Your task to perform on an android device: Turn off the flashlight Image 0: 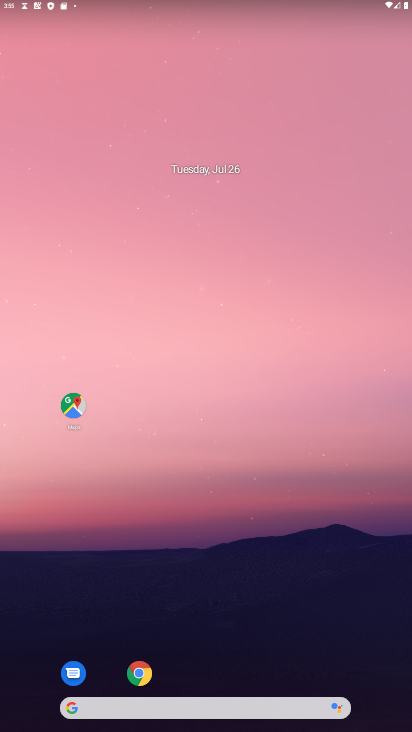
Step 0: drag from (181, 703) to (235, 134)
Your task to perform on an android device: Turn off the flashlight Image 1: 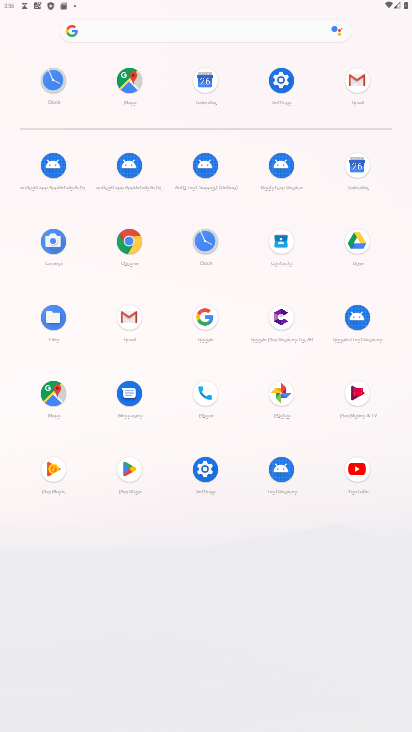
Step 1: click (278, 80)
Your task to perform on an android device: Turn off the flashlight Image 2: 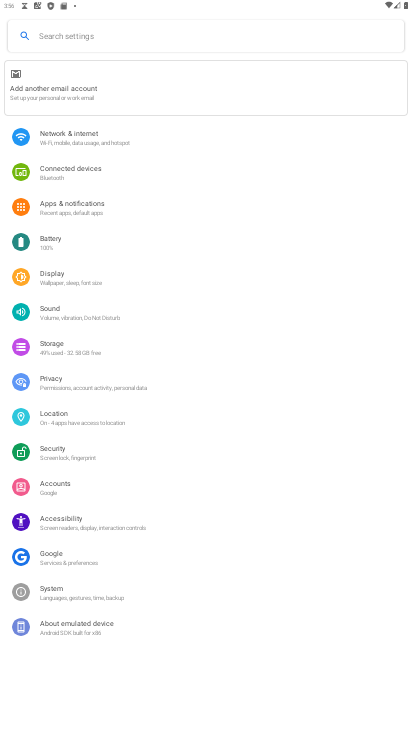
Step 2: click (67, 278)
Your task to perform on an android device: Turn off the flashlight Image 3: 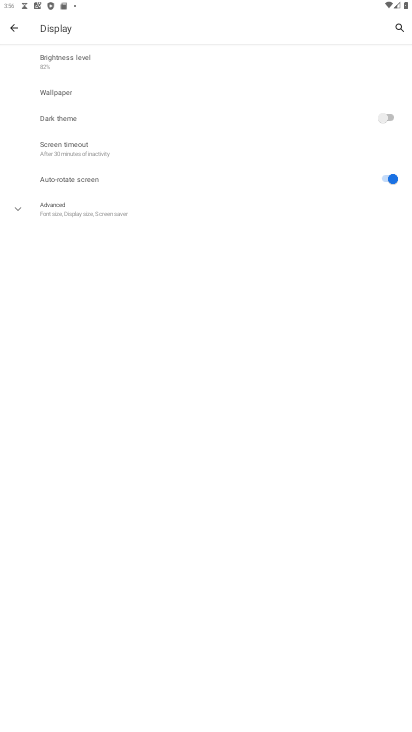
Step 3: click (398, 25)
Your task to perform on an android device: Turn off the flashlight Image 4: 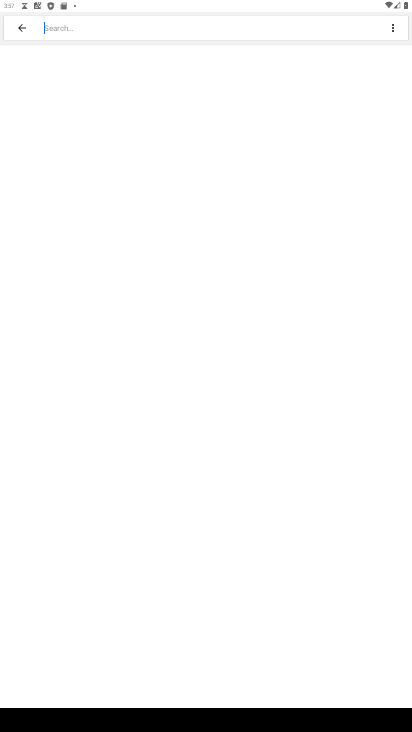
Step 4: type "flashlight"
Your task to perform on an android device: Turn off the flashlight Image 5: 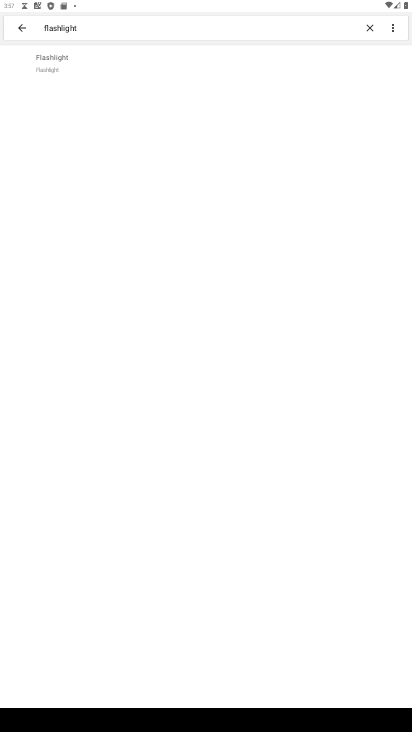
Step 5: click (44, 59)
Your task to perform on an android device: Turn off the flashlight Image 6: 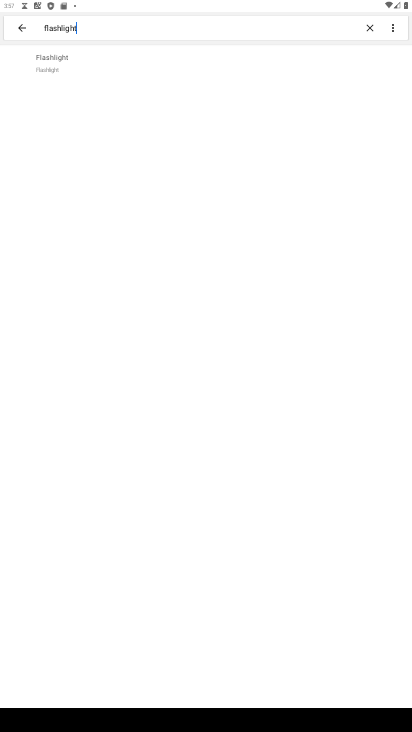
Step 6: click (44, 59)
Your task to perform on an android device: Turn off the flashlight Image 7: 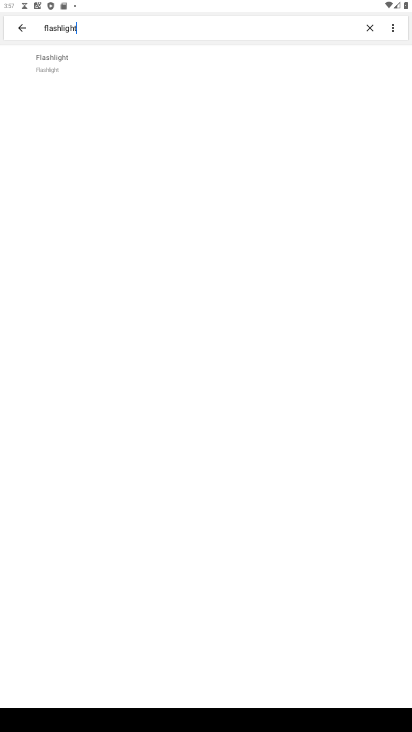
Step 7: click (44, 59)
Your task to perform on an android device: Turn off the flashlight Image 8: 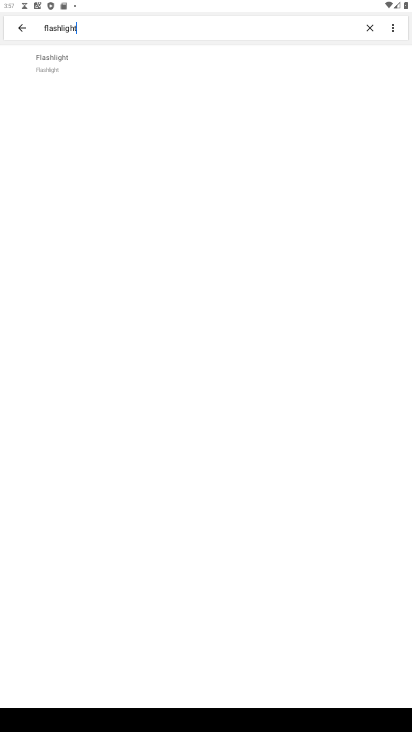
Step 8: click (44, 59)
Your task to perform on an android device: Turn off the flashlight Image 9: 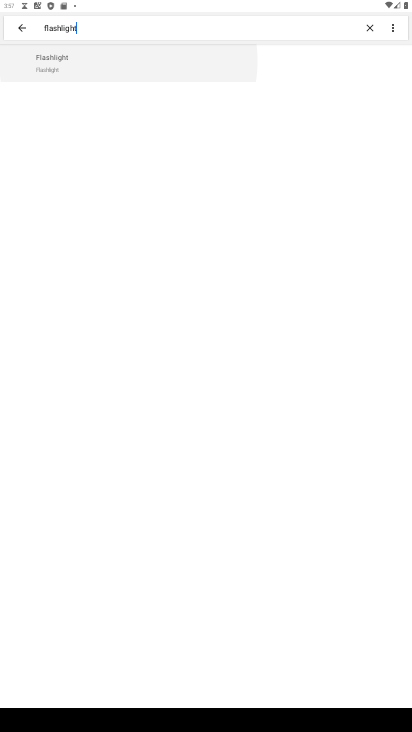
Step 9: click (44, 59)
Your task to perform on an android device: Turn off the flashlight Image 10: 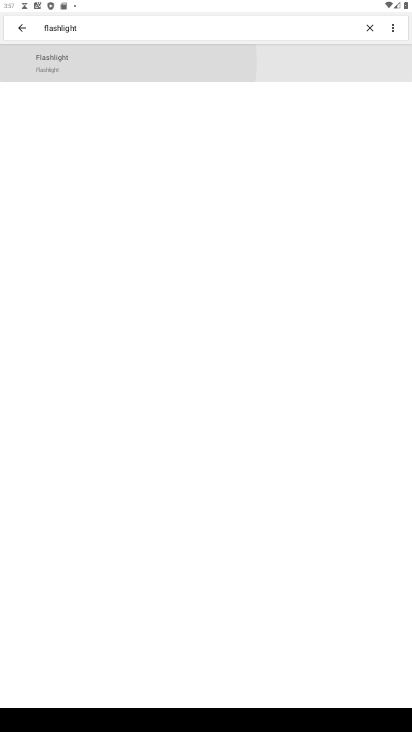
Step 10: click (44, 59)
Your task to perform on an android device: Turn off the flashlight Image 11: 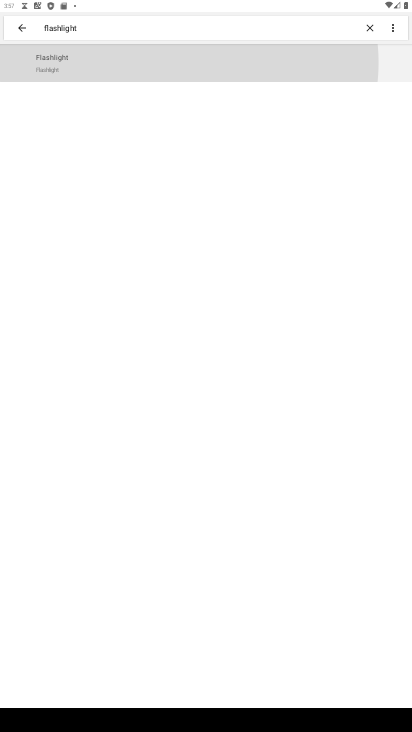
Step 11: click (44, 59)
Your task to perform on an android device: Turn off the flashlight Image 12: 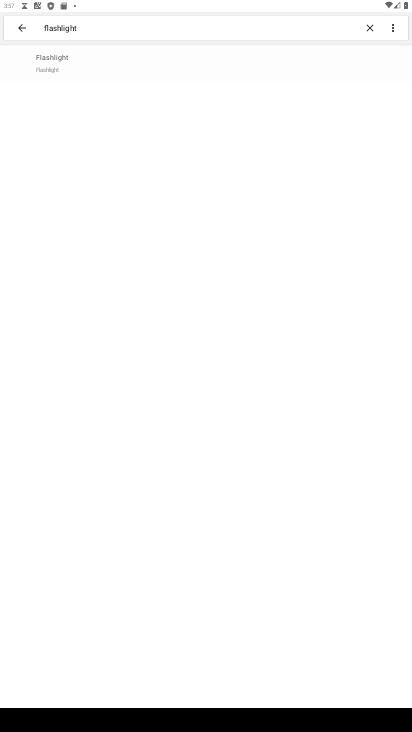
Step 12: click (44, 59)
Your task to perform on an android device: Turn off the flashlight Image 13: 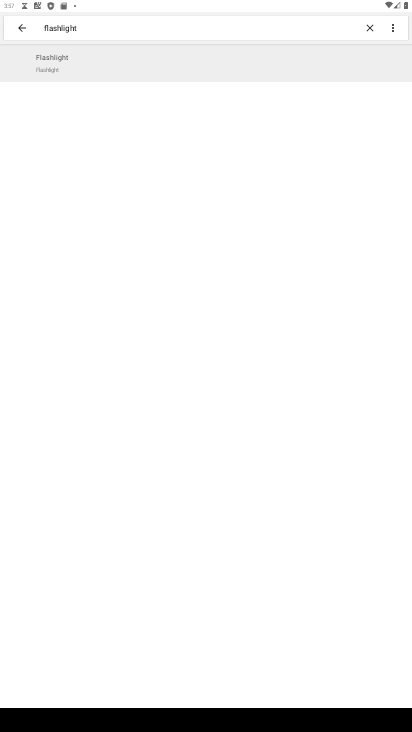
Step 13: click (44, 59)
Your task to perform on an android device: Turn off the flashlight Image 14: 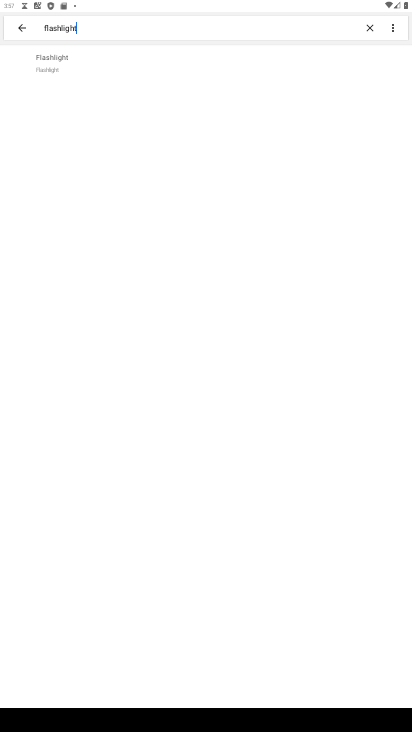
Step 14: click (44, 59)
Your task to perform on an android device: Turn off the flashlight Image 15: 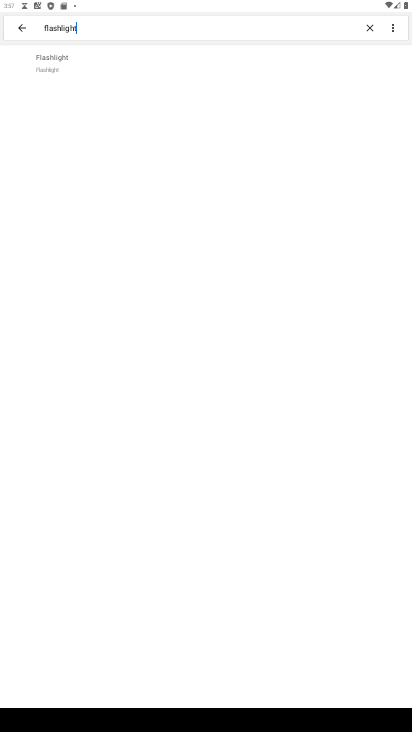
Step 15: task complete